Your task to perform on an android device: Open Google Chrome and open the bookmarks view Image 0: 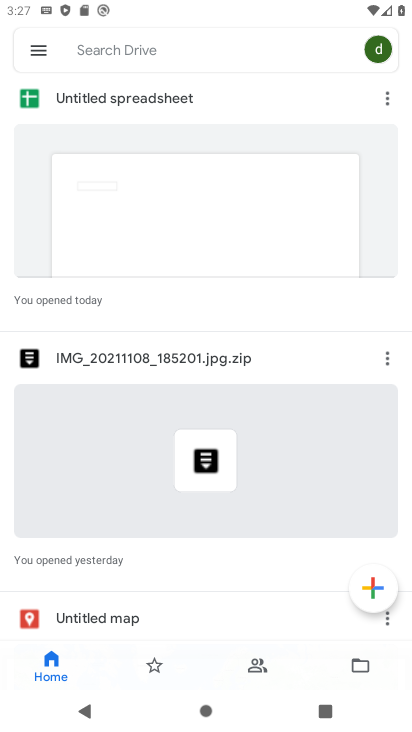
Step 0: press home button
Your task to perform on an android device: Open Google Chrome and open the bookmarks view Image 1: 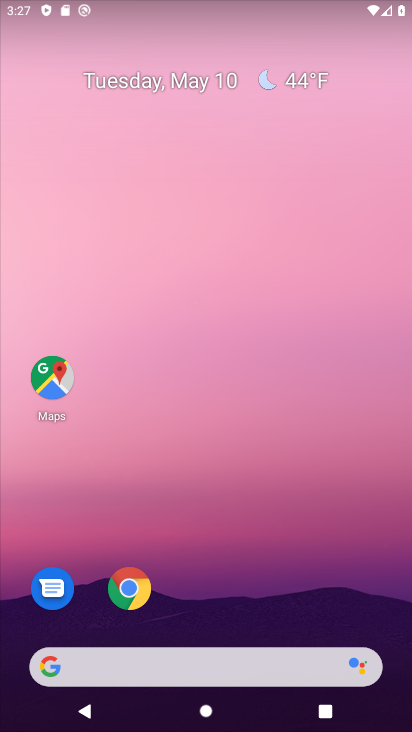
Step 1: click (126, 587)
Your task to perform on an android device: Open Google Chrome and open the bookmarks view Image 2: 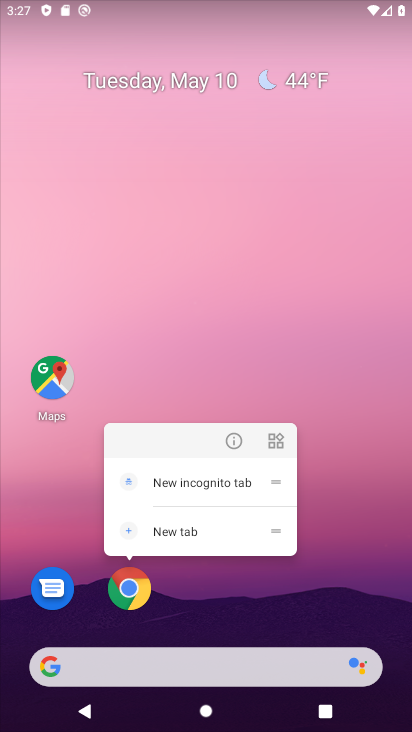
Step 2: click (138, 591)
Your task to perform on an android device: Open Google Chrome and open the bookmarks view Image 3: 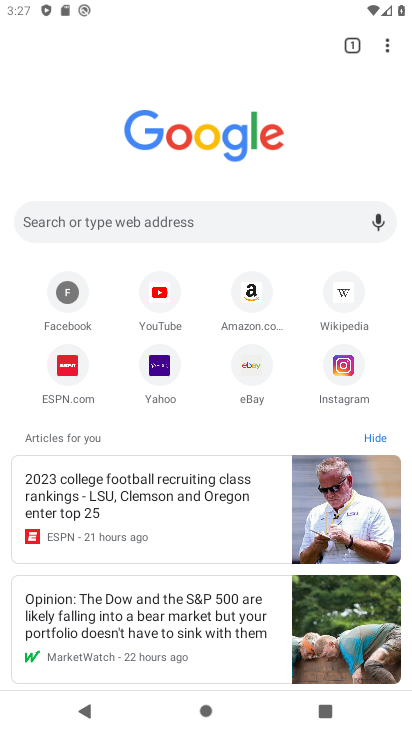
Step 3: click (387, 48)
Your task to perform on an android device: Open Google Chrome and open the bookmarks view Image 4: 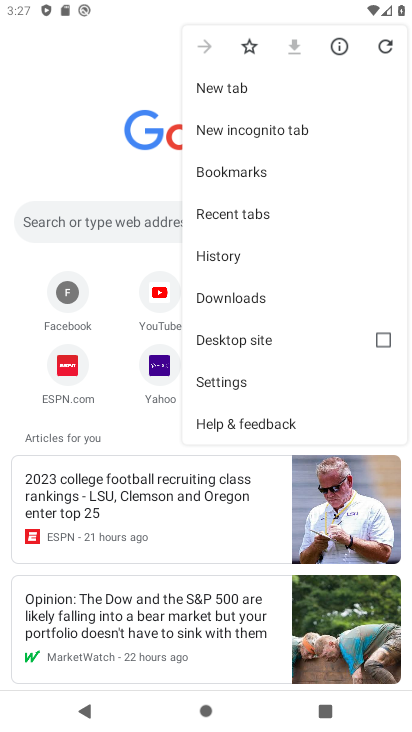
Step 4: click (239, 171)
Your task to perform on an android device: Open Google Chrome and open the bookmarks view Image 5: 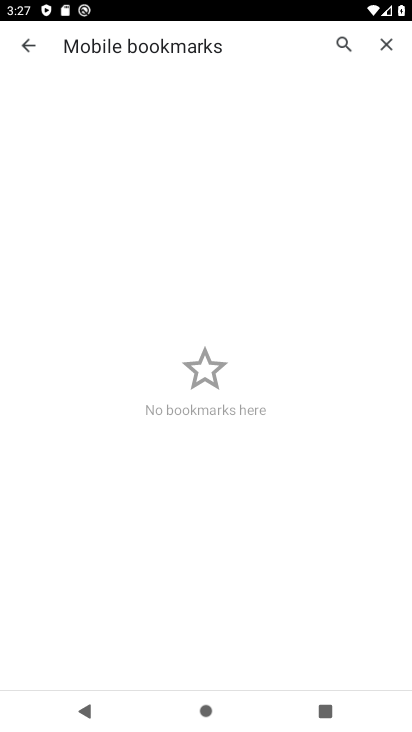
Step 5: task complete